Your task to perform on an android device: check out phone information Image 0: 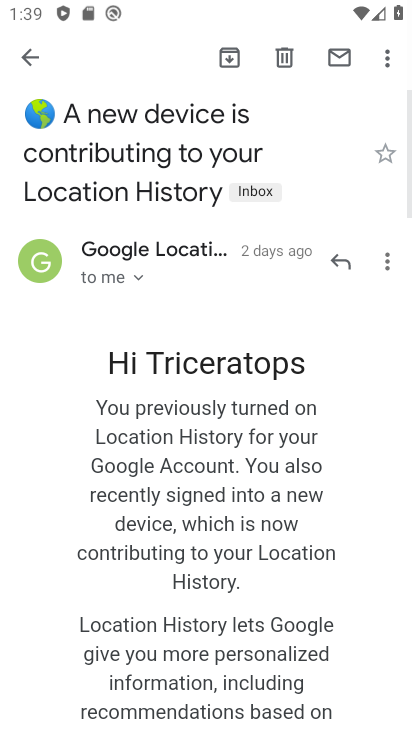
Step 0: press home button
Your task to perform on an android device: check out phone information Image 1: 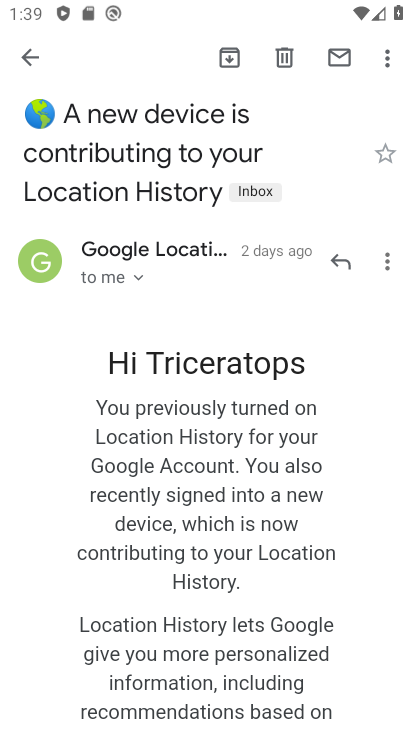
Step 1: press home button
Your task to perform on an android device: check out phone information Image 2: 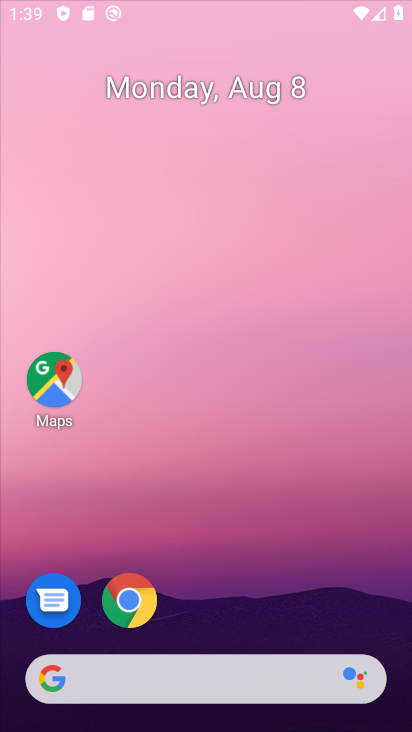
Step 2: press home button
Your task to perform on an android device: check out phone information Image 3: 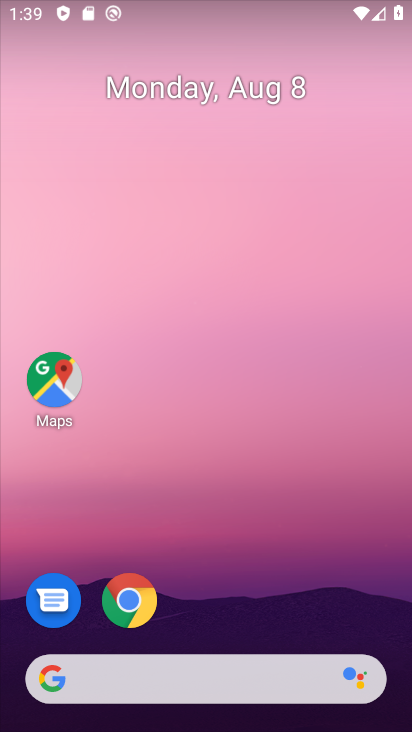
Step 3: drag from (315, 465) to (313, 33)
Your task to perform on an android device: check out phone information Image 4: 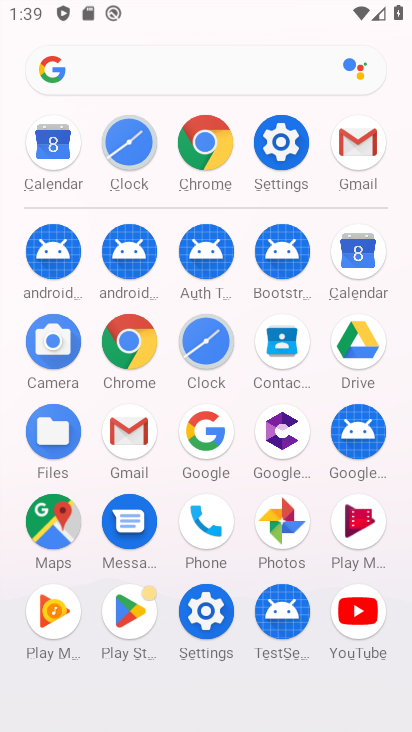
Step 4: click (198, 533)
Your task to perform on an android device: check out phone information Image 5: 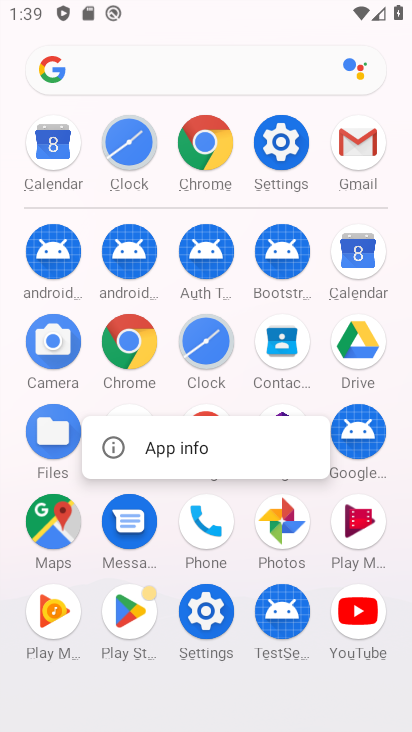
Step 5: click (218, 465)
Your task to perform on an android device: check out phone information Image 6: 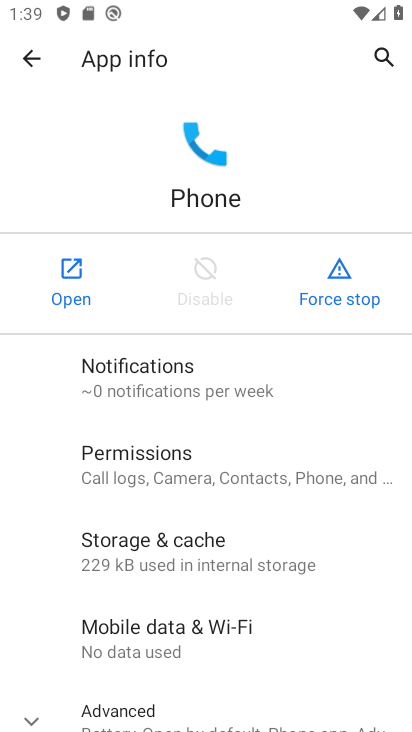
Step 6: task complete